Your task to perform on an android device: open app "Google Drive" Image 0: 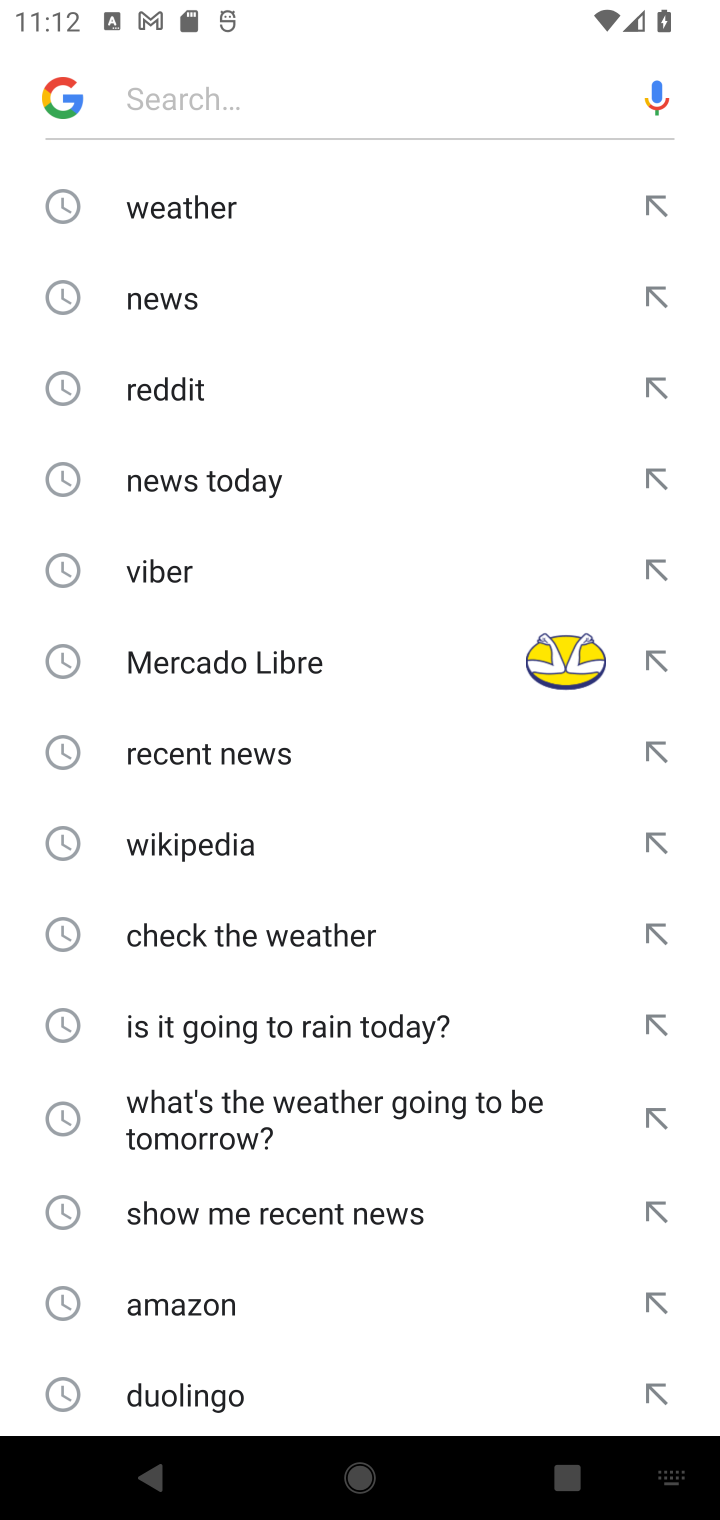
Step 0: press home button
Your task to perform on an android device: open app "Google Drive" Image 1: 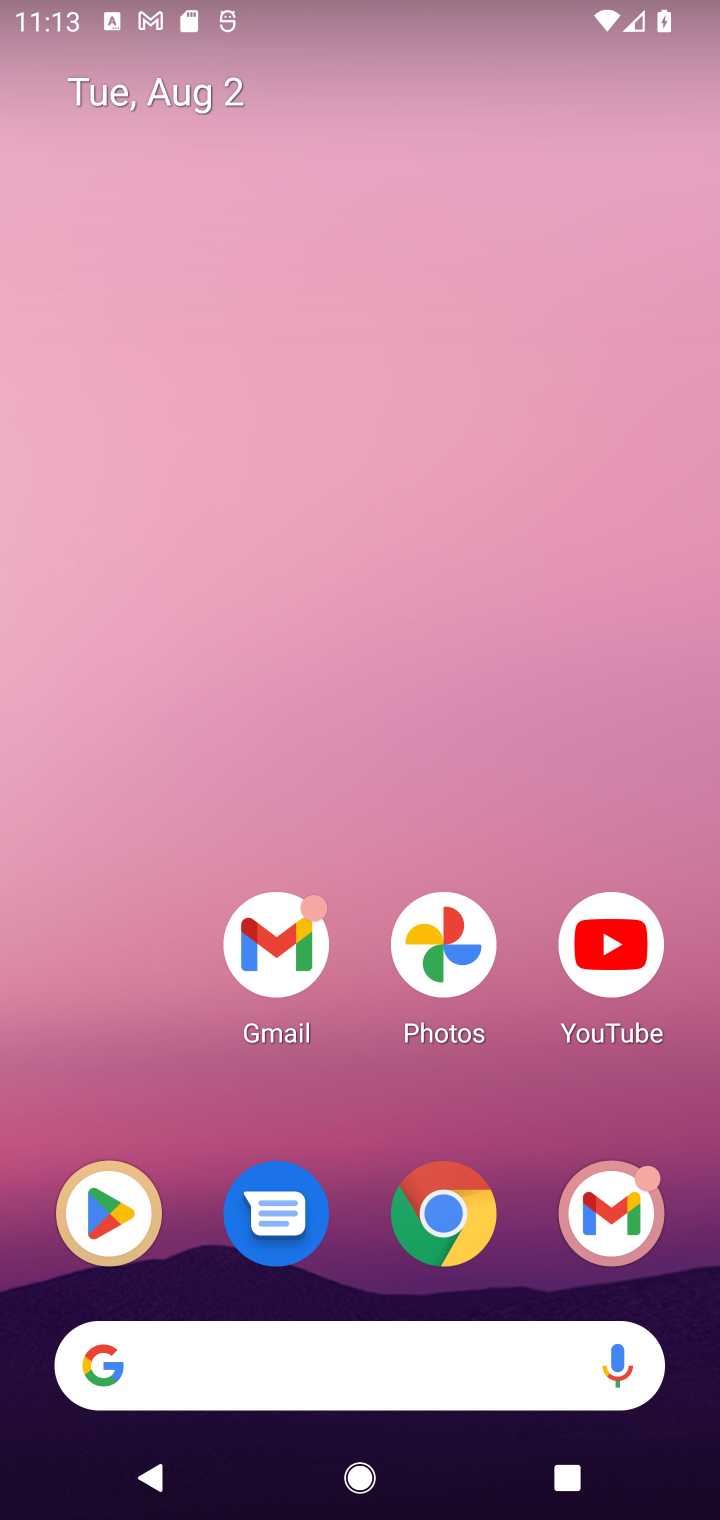
Step 1: click (102, 1221)
Your task to perform on an android device: open app "Google Drive" Image 2: 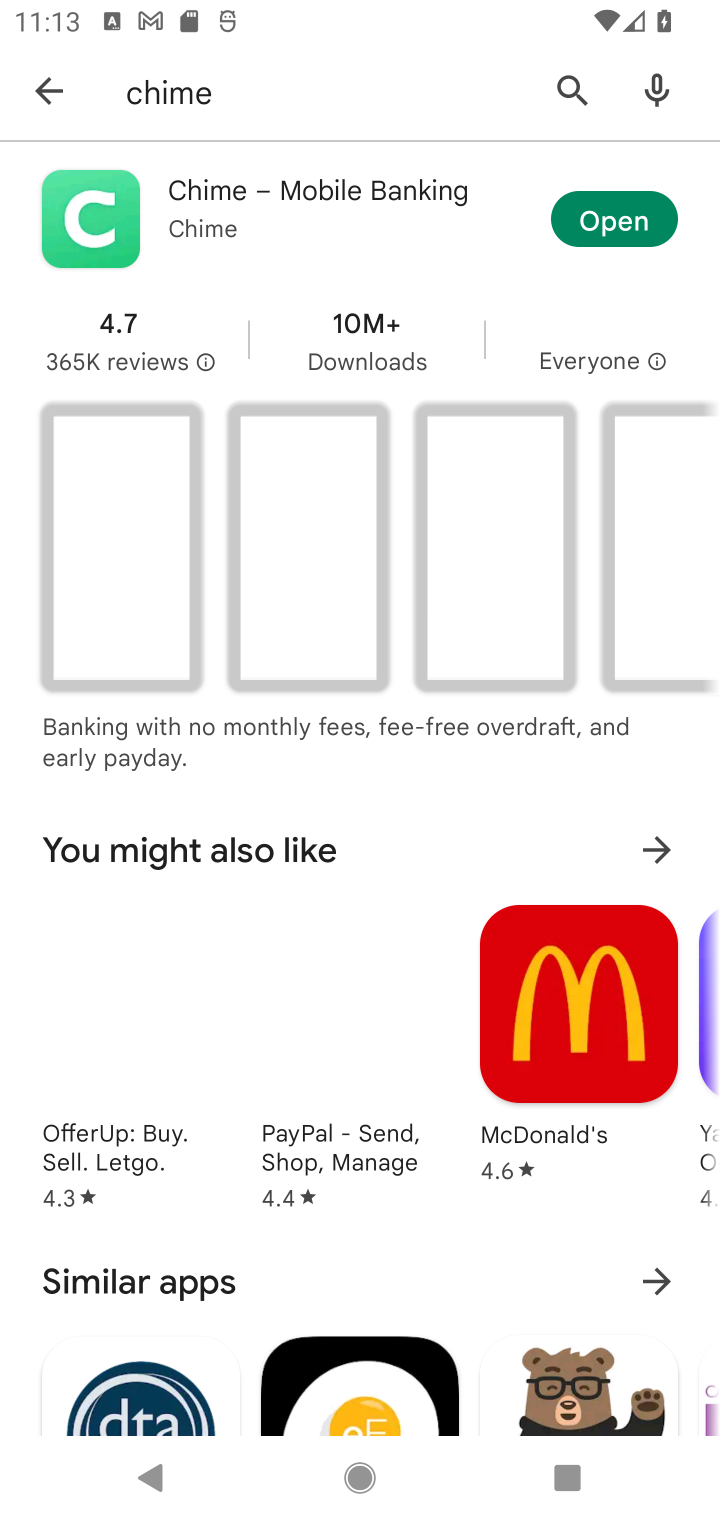
Step 2: click (47, 81)
Your task to perform on an android device: open app "Google Drive" Image 3: 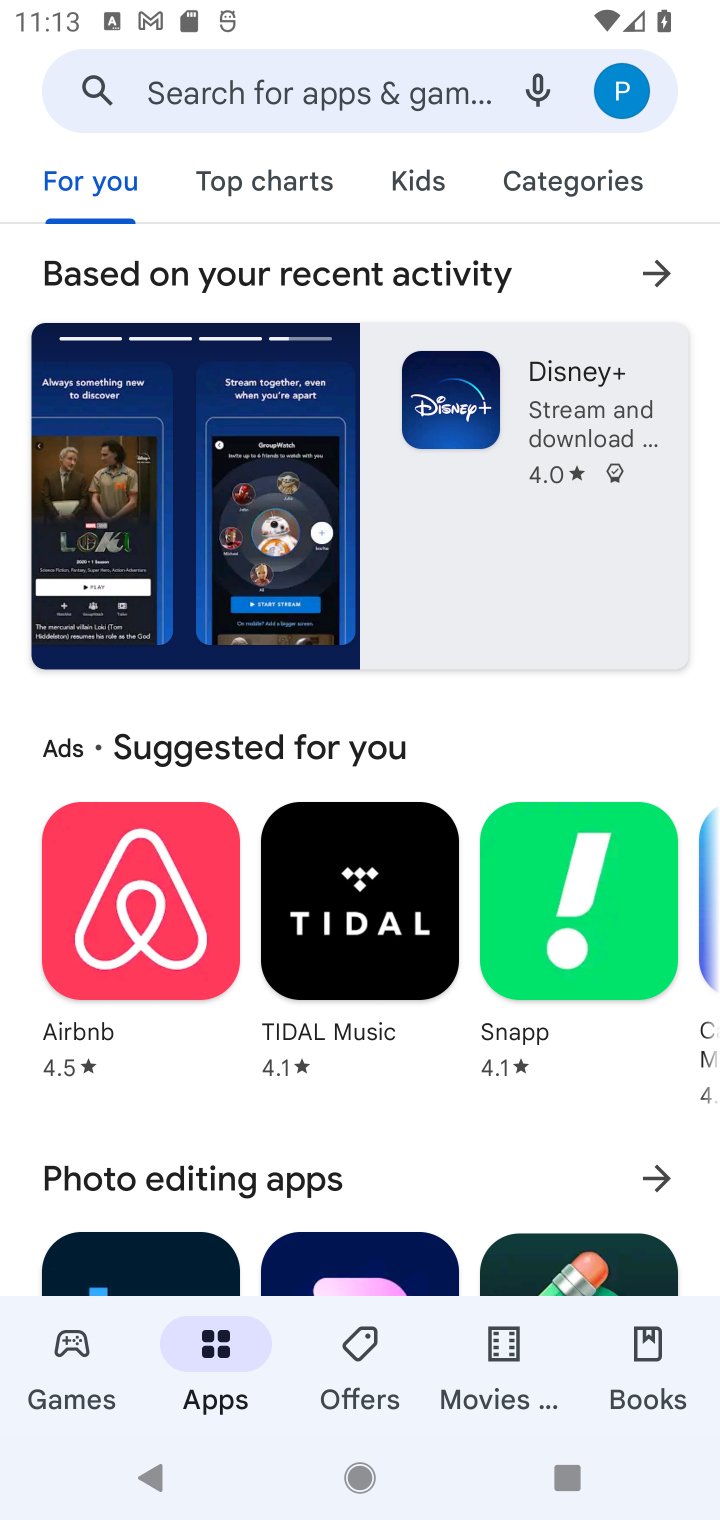
Step 3: click (207, 89)
Your task to perform on an android device: open app "Google Drive" Image 4: 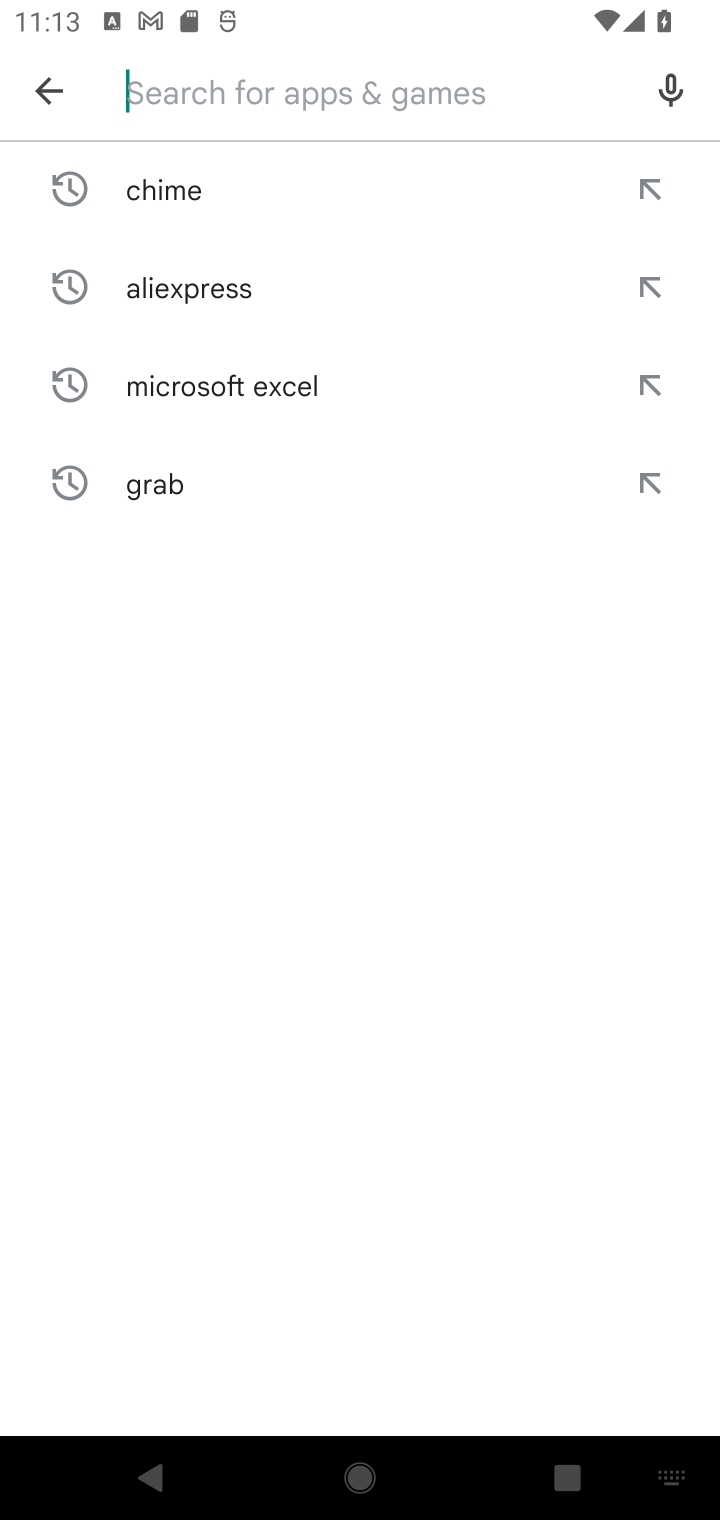
Step 4: type "Google Drive"
Your task to perform on an android device: open app "Google Drive" Image 5: 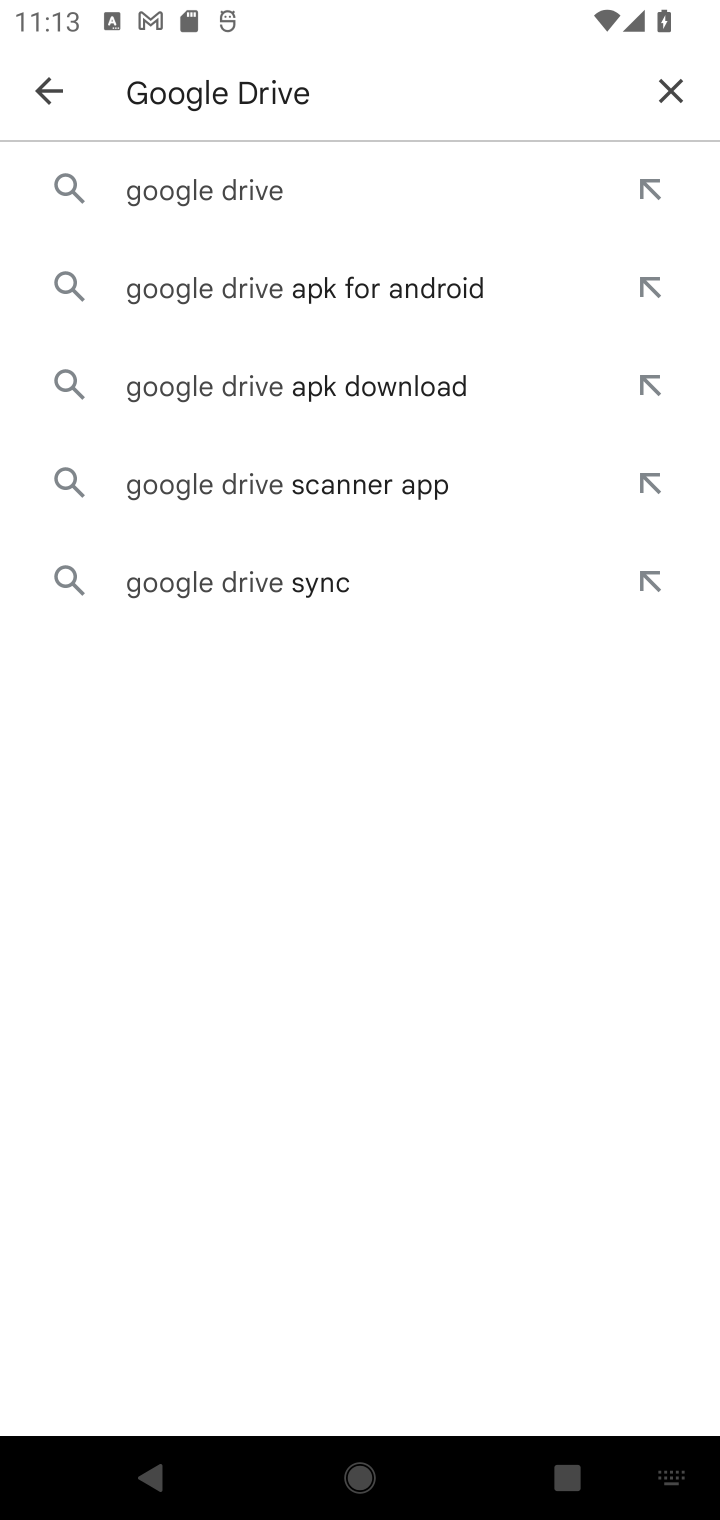
Step 5: click (197, 196)
Your task to perform on an android device: open app "Google Drive" Image 6: 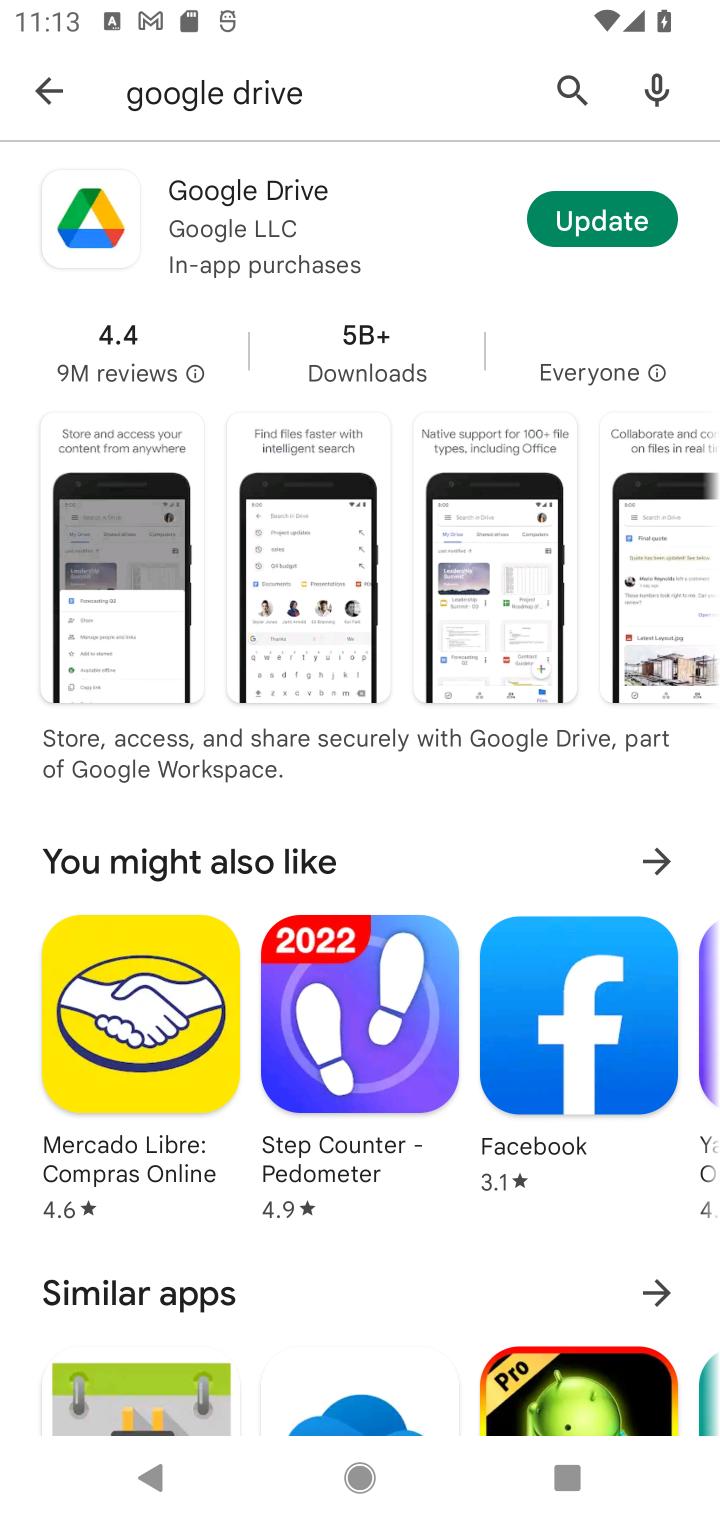
Step 6: click (590, 231)
Your task to perform on an android device: open app "Google Drive" Image 7: 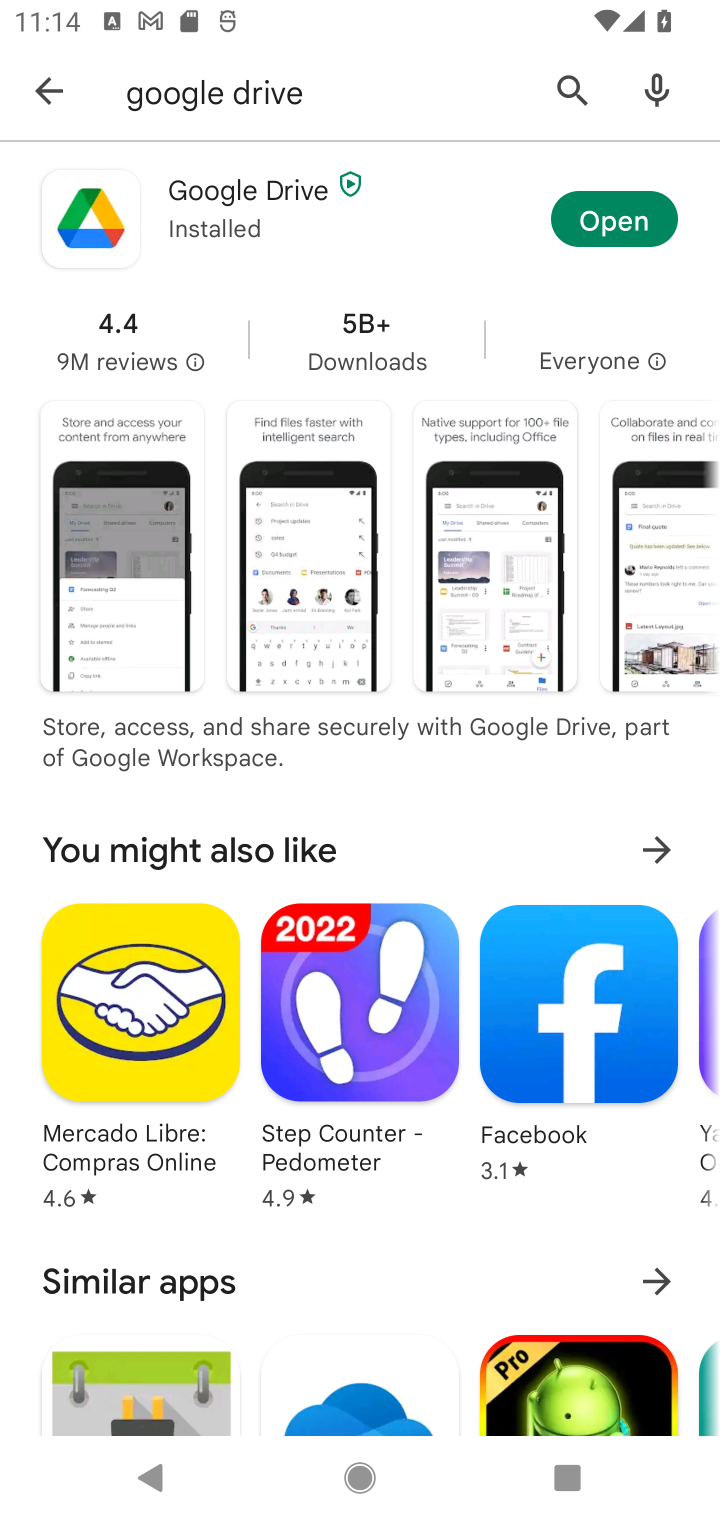
Step 7: click (614, 209)
Your task to perform on an android device: open app "Google Drive" Image 8: 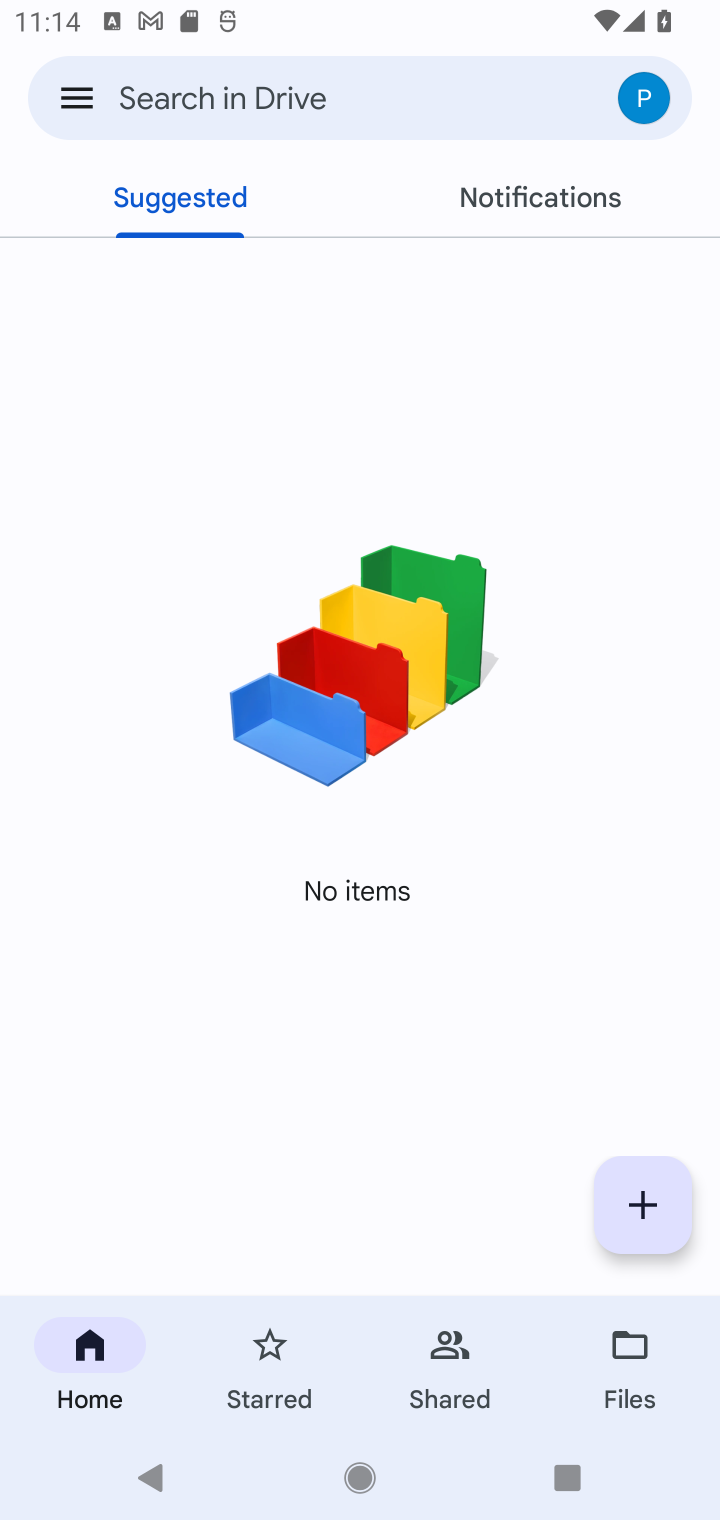
Step 8: click (241, 73)
Your task to perform on an android device: open app "Google Drive" Image 9: 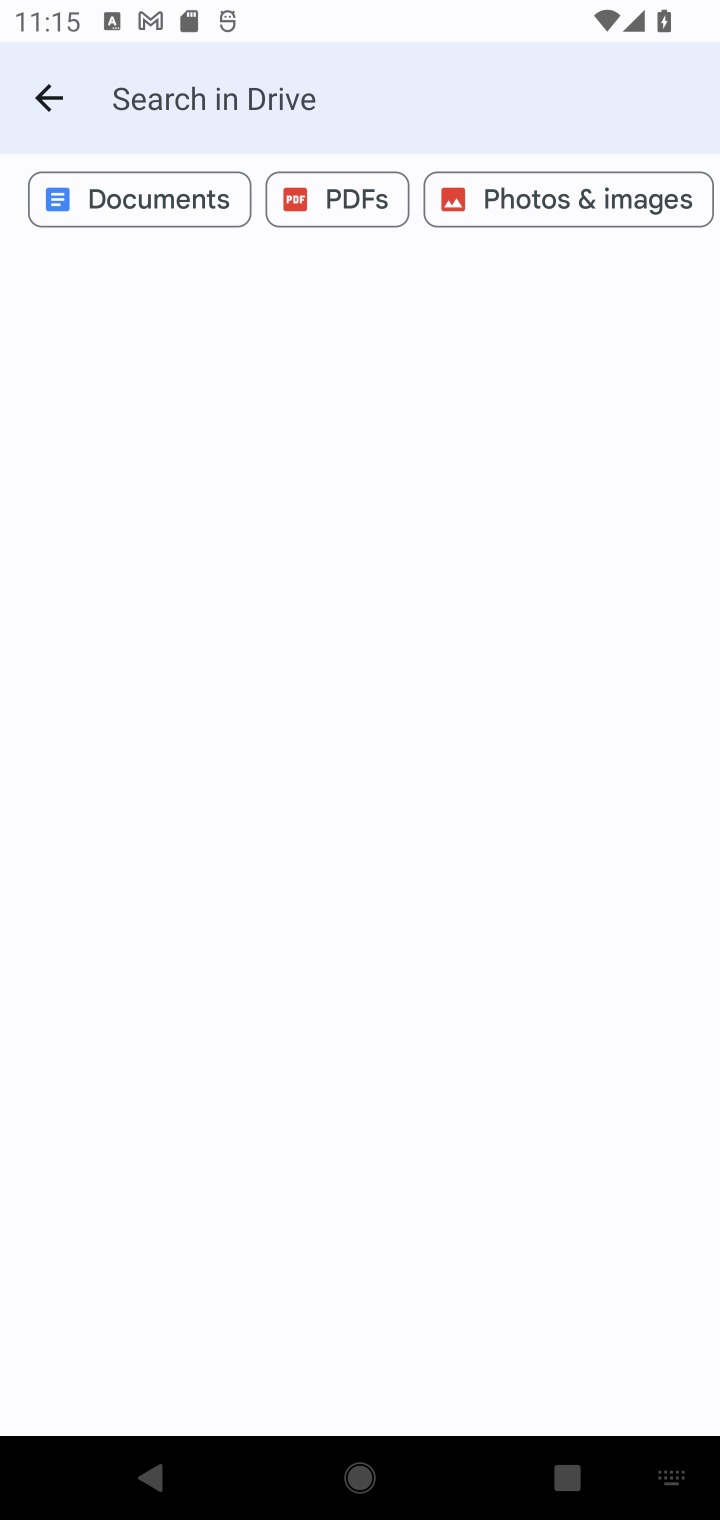
Step 9: task complete